Your task to perform on an android device: open device folders in google photos Image 0: 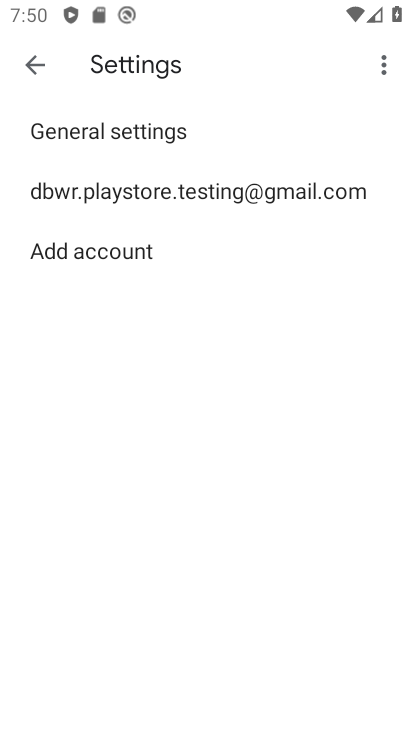
Step 0: press home button
Your task to perform on an android device: open device folders in google photos Image 1: 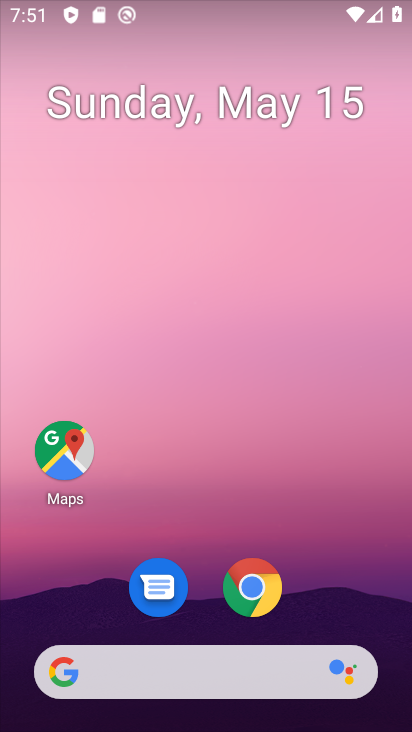
Step 1: drag from (208, 522) to (242, 207)
Your task to perform on an android device: open device folders in google photos Image 2: 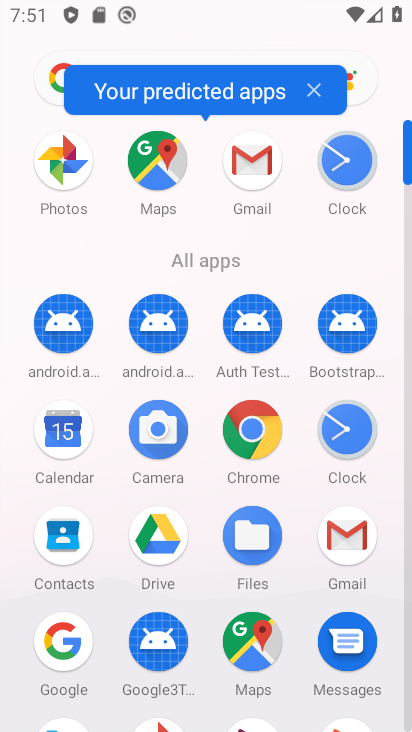
Step 2: drag from (209, 568) to (200, 204)
Your task to perform on an android device: open device folders in google photos Image 3: 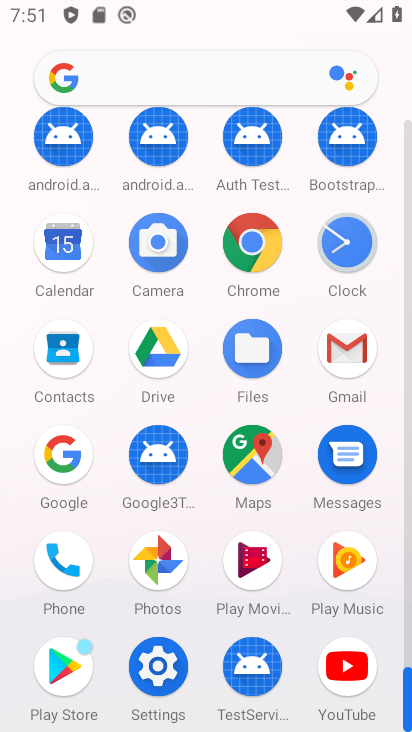
Step 3: click (161, 546)
Your task to perform on an android device: open device folders in google photos Image 4: 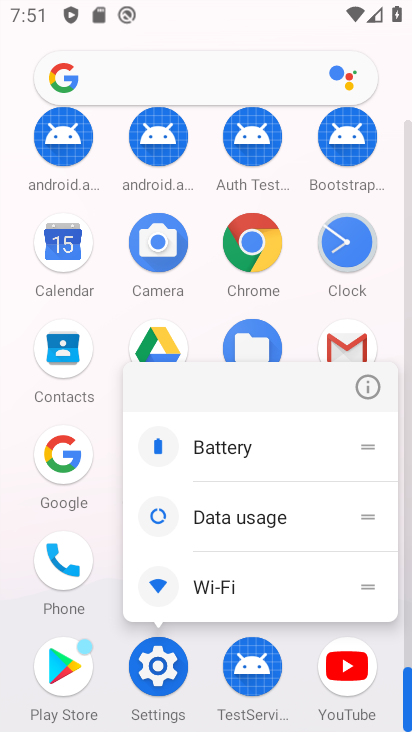
Step 4: click (21, 522)
Your task to perform on an android device: open device folders in google photos Image 5: 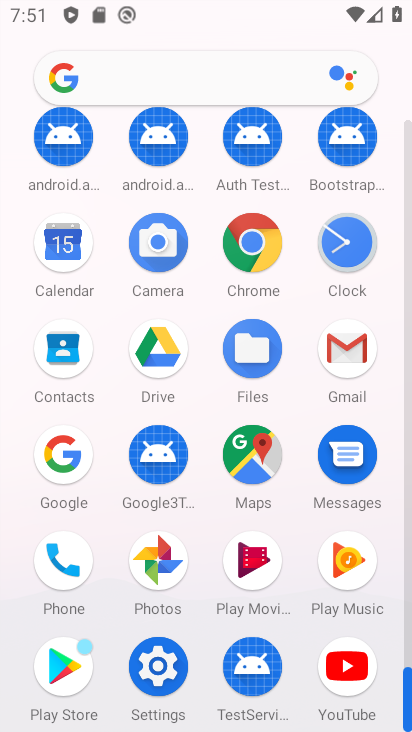
Step 5: click (158, 560)
Your task to perform on an android device: open device folders in google photos Image 6: 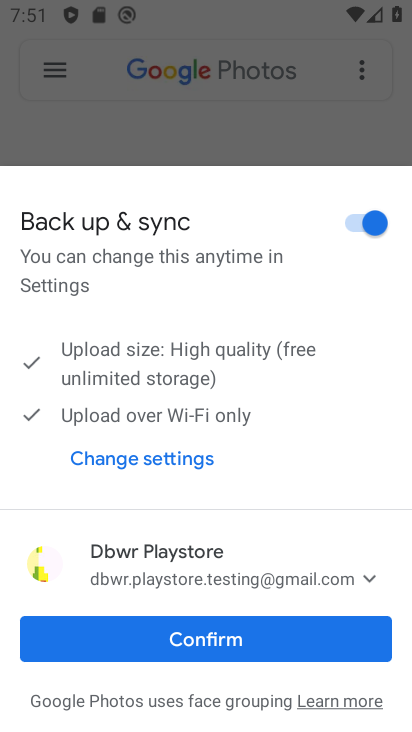
Step 6: click (273, 650)
Your task to perform on an android device: open device folders in google photos Image 7: 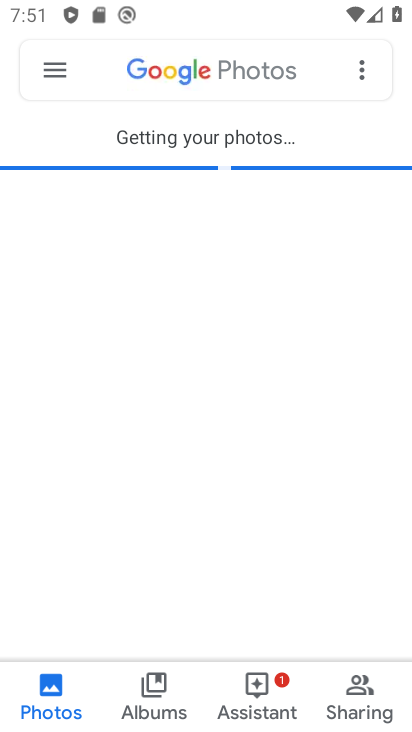
Step 7: click (56, 74)
Your task to perform on an android device: open device folders in google photos Image 8: 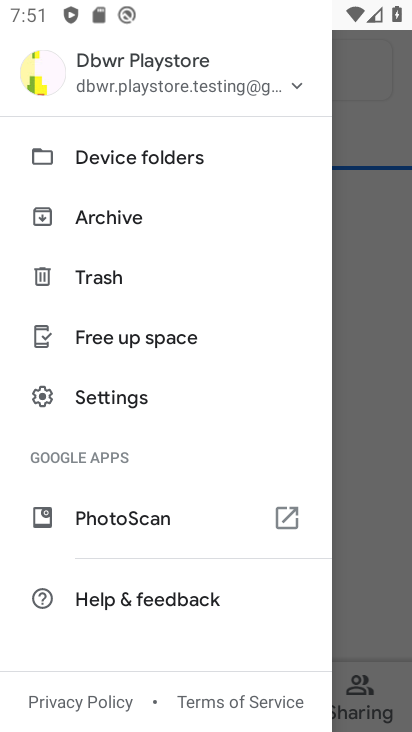
Step 8: click (159, 165)
Your task to perform on an android device: open device folders in google photos Image 9: 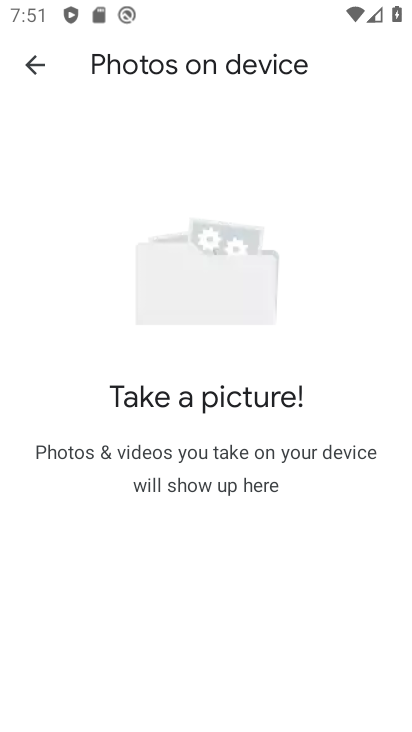
Step 9: task complete